Your task to perform on an android device: create a new album in the google photos Image 0: 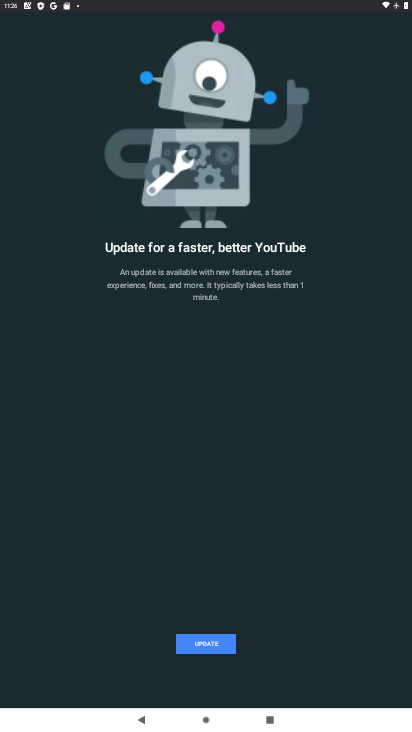
Step 0: press home button
Your task to perform on an android device: create a new album in the google photos Image 1: 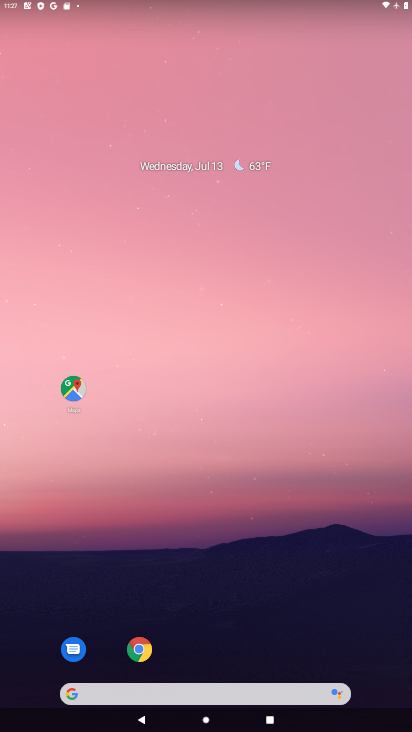
Step 1: drag from (215, 667) to (236, 337)
Your task to perform on an android device: create a new album in the google photos Image 2: 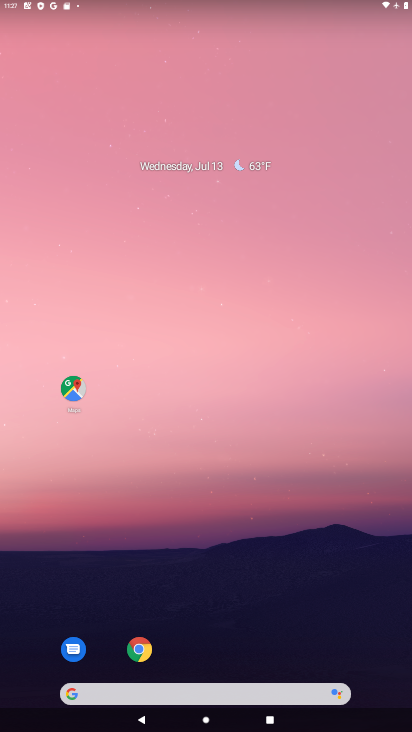
Step 2: drag from (173, 595) to (230, 199)
Your task to perform on an android device: create a new album in the google photos Image 3: 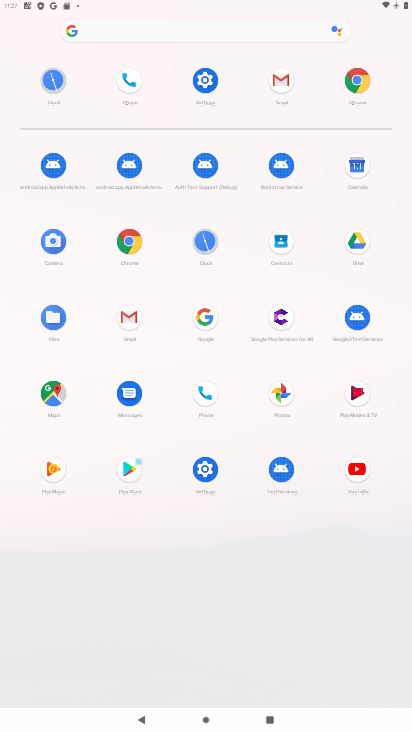
Step 3: click (283, 387)
Your task to perform on an android device: create a new album in the google photos Image 4: 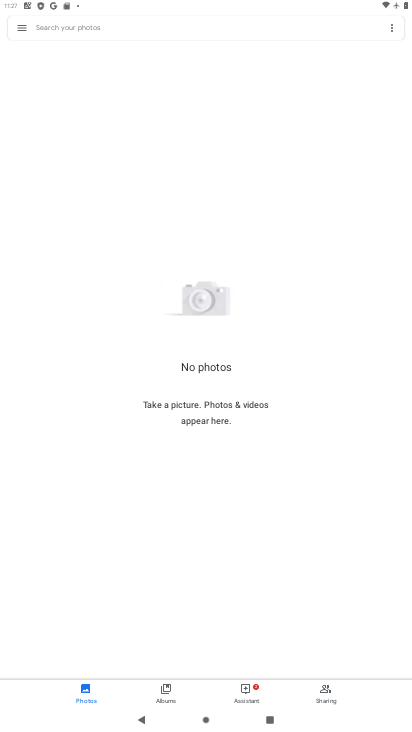
Step 4: click (178, 683)
Your task to perform on an android device: create a new album in the google photos Image 5: 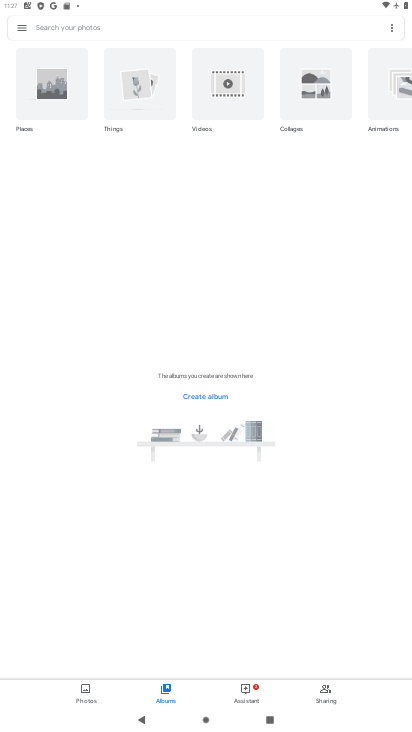
Step 5: task complete